Your task to perform on an android device: turn on location history Image 0: 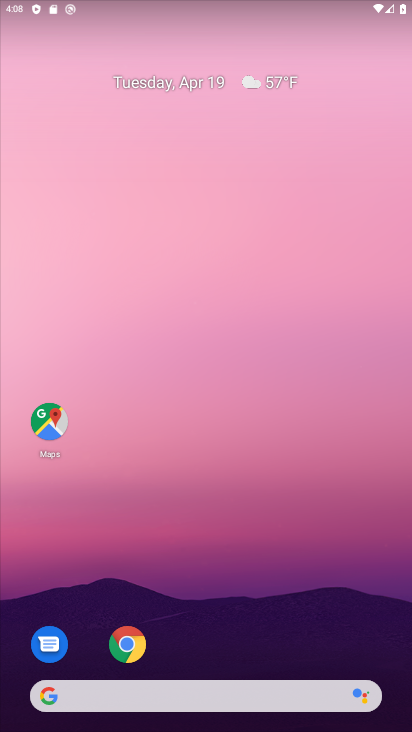
Step 0: drag from (307, 572) to (269, 170)
Your task to perform on an android device: turn on location history Image 1: 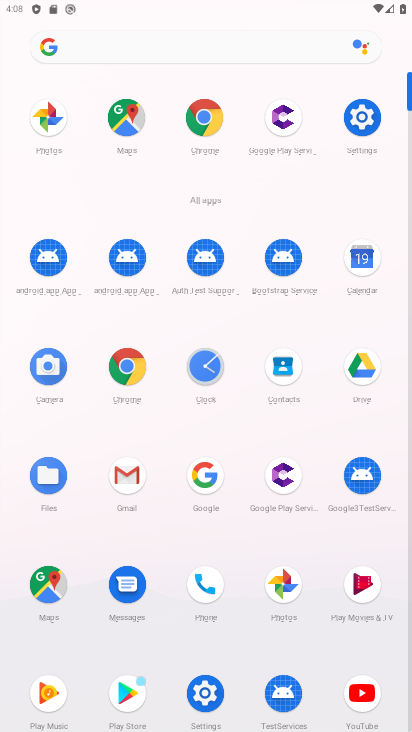
Step 1: click (366, 120)
Your task to perform on an android device: turn on location history Image 2: 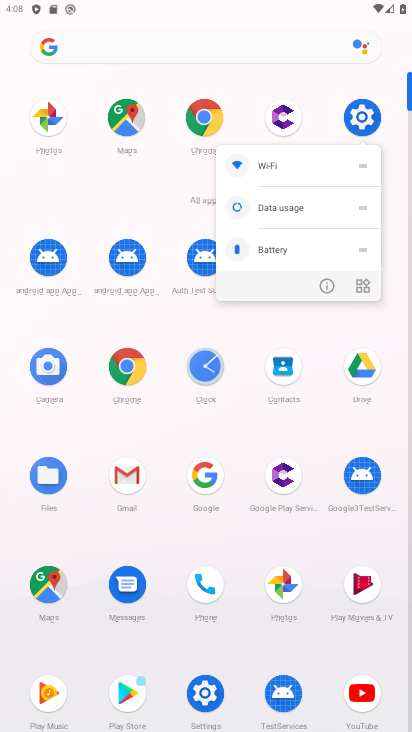
Step 2: click (366, 119)
Your task to perform on an android device: turn on location history Image 3: 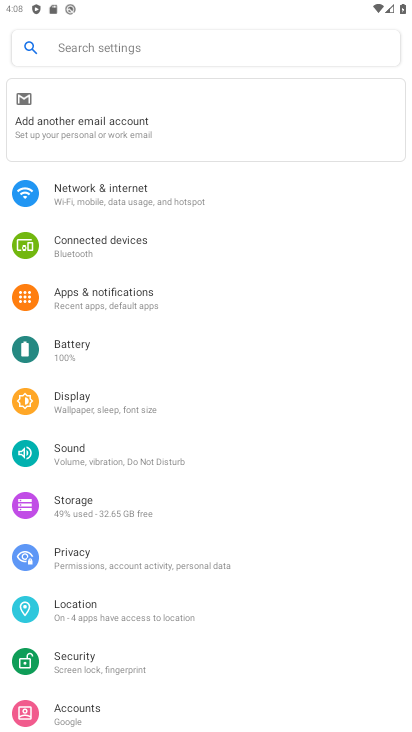
Step 3: drag from (188, 545) to (221, 255)
Your task to perform on an android device: turn on location history Image 4: 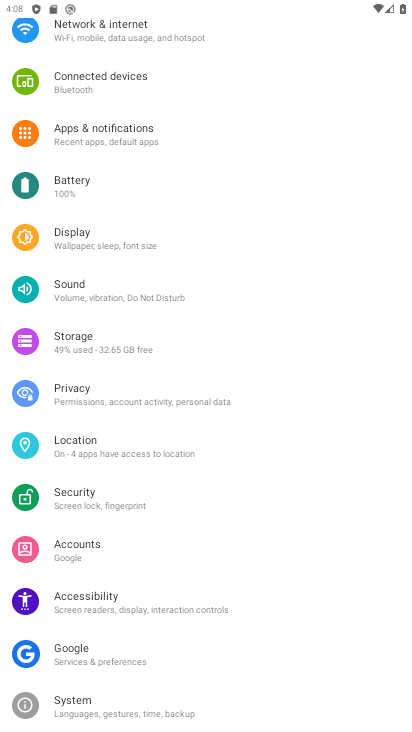
Step 4: click (87, 436)
Your task to perform on an android device: turn on location history Image 5: 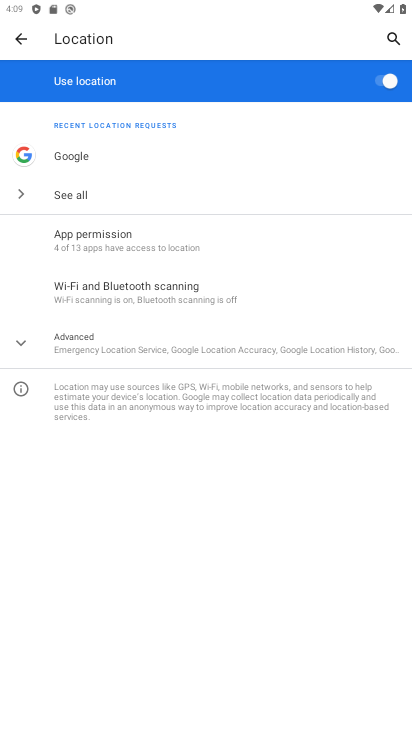
Step 5: click (130, 343)
Your task to perform on an android device: turn on location history Image 6: 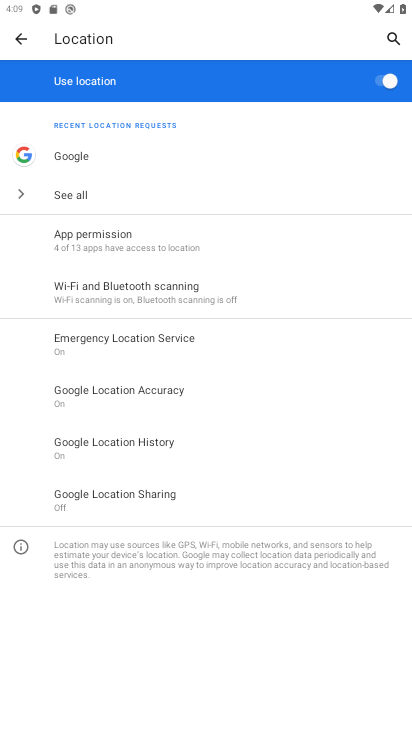
Step 6: click (134, 433)
Your task to perform on an android device: turn on location history Image 7: 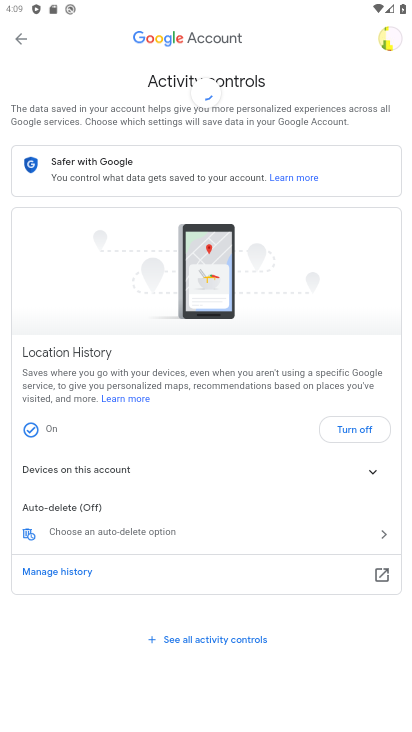
Step 7: task complete